Your task to perform on an android device: Is it going to rain this weekend? Image 0: 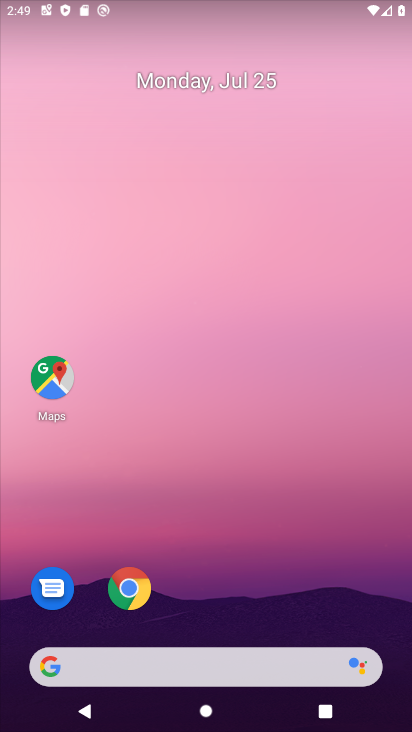
Step 0: drag from (213, 596) to (239, 160)
Your task to perform on an android device: Is it going to rain this weekend? Image 1: 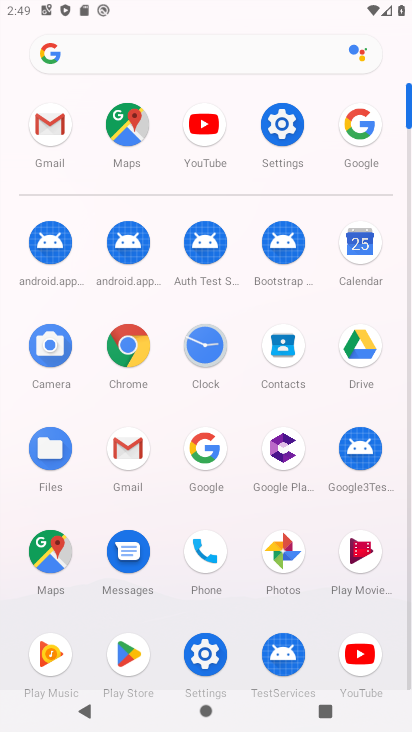
Step 1: click (206, 439)
Your task to perform on an android device: Is it going to rain this weekend? Image 2: 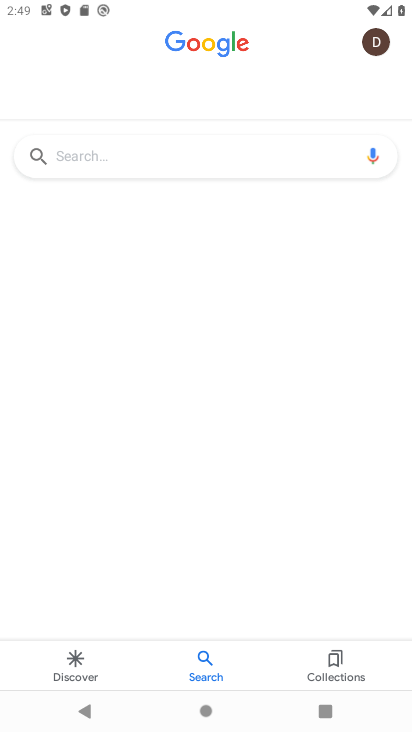
Step 2: click (95, 166)
Your task to perform on an android device: Is it going to rain this weekend? Image 3: 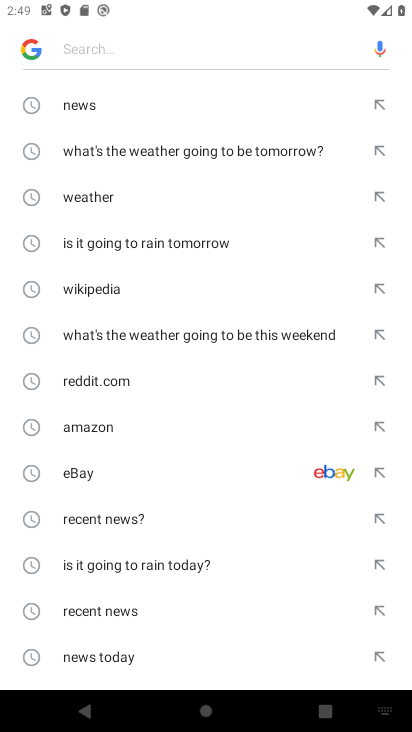
Step 3: click (127, 206)
Your task to perform on an android device: Is it going to rain this weekend? Image 4: 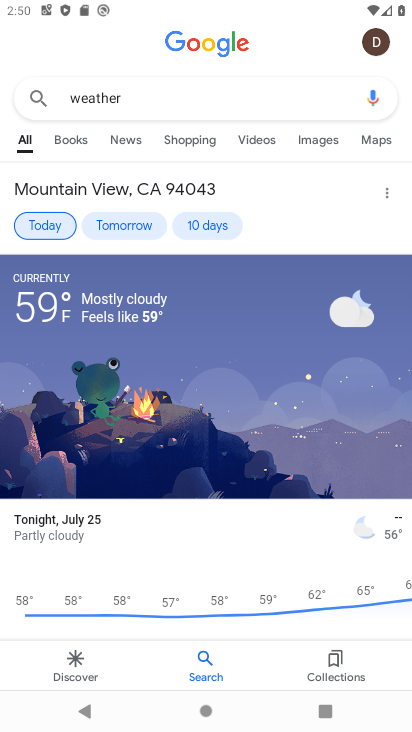
Step 4: click (191, 213)
Your task to perform on an android device: Is it going to rain this weekend? Image 5: 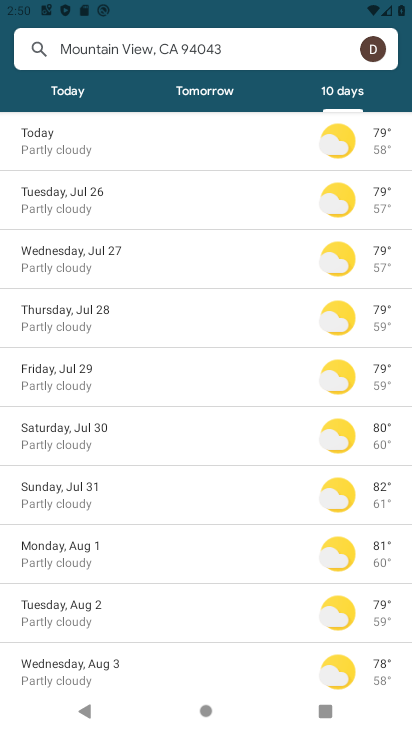
Step 5: task complete